Your task to perform on an android device: What's the weather going to be this weekend? Image 0: 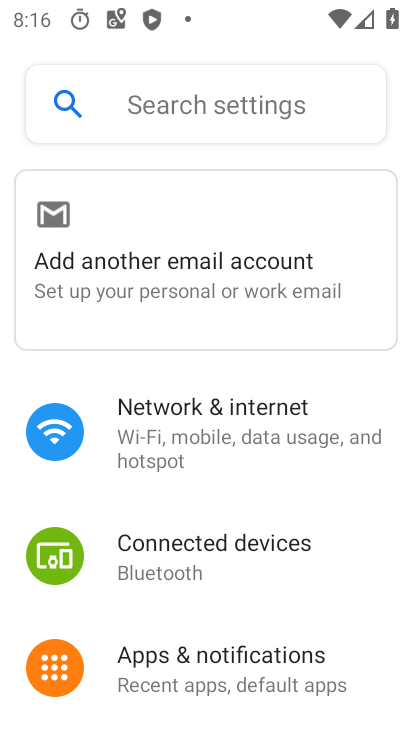
Step 0: press home button
Your task to perform on an android device: What's the weather going to be this weekend? Image 1: 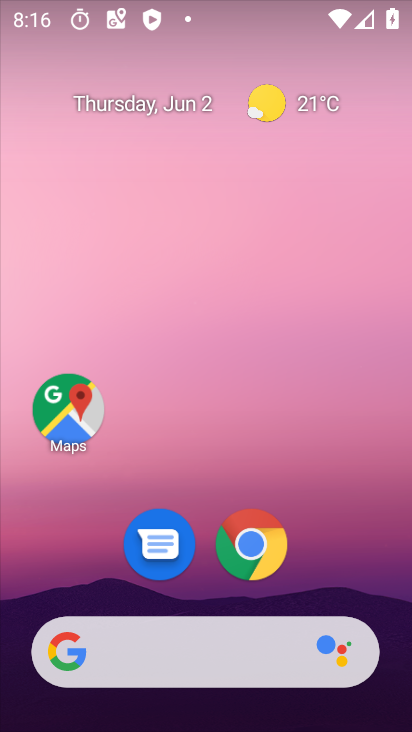
Step 1: click (274, 539)
Your task to perform on an android device: What's the weather going to be this weekend? Image 2: 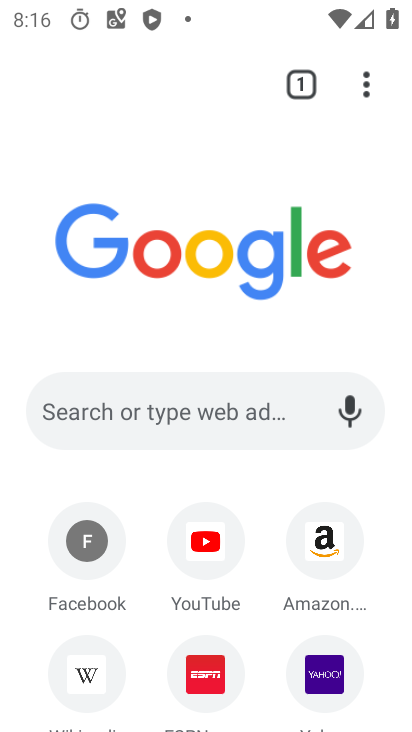
Step 2: click (276, 394)
Your task to perform on an android device: What's the weather going to be this weekend? Image 3: 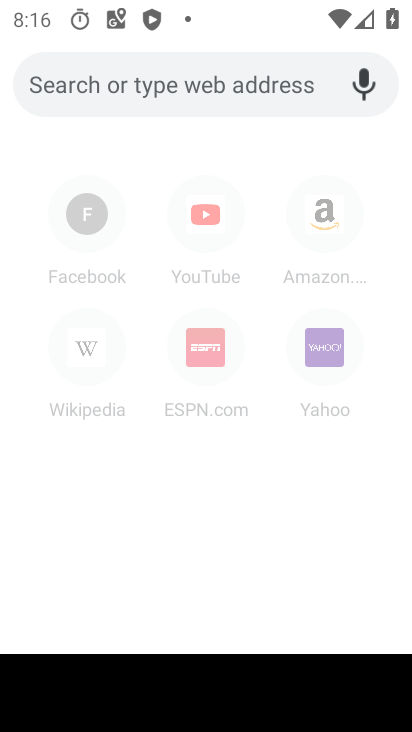
Step 3: type "What's the weather going to be this weekend?"
Your task to perform on an android device: What's the weather going to be this weekend? Image 4: 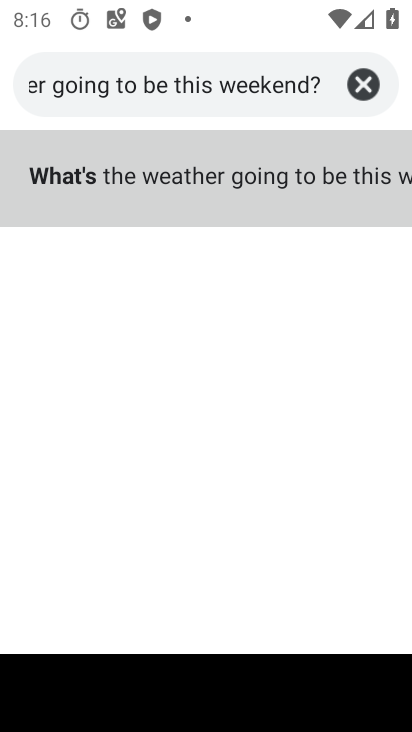
Step 4: click (373, 177)
Your task to perform on an android device: What's the weather going to be this weekend? Image 5: 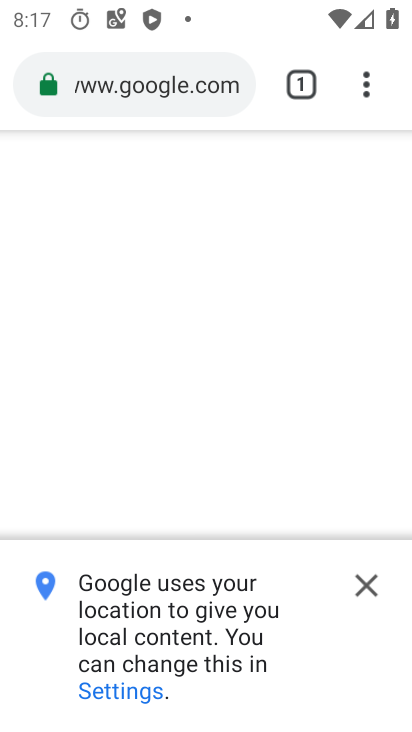
Step 5: click (357, 600)
Your task to perform on an android device: What's the weather going to be this weekend? Image 6: 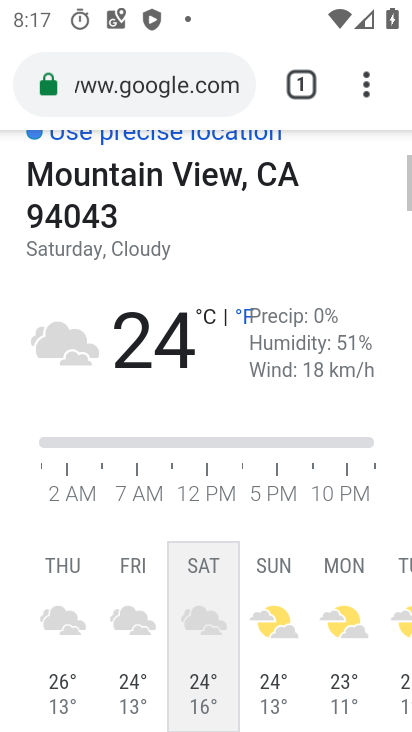
Step 6: task complete